Your task to perform on an android device: Open Google Chrome and click the shortcut for Amazon.com Image 0: 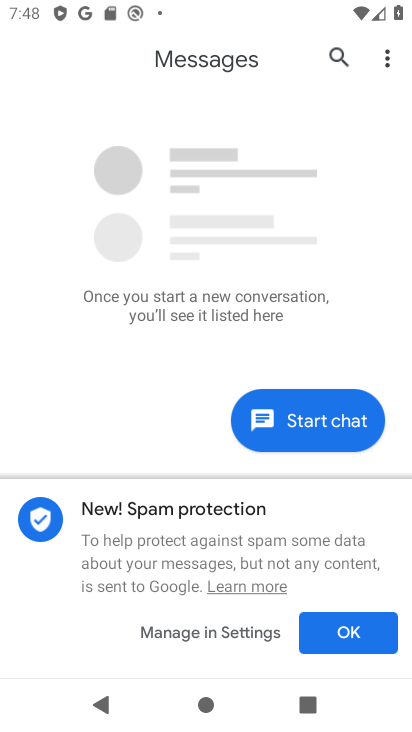
Step 0: press home button
Your task to perform on an android device: Open Google Chrome and click the shortcut for Amazon.com Image 1: 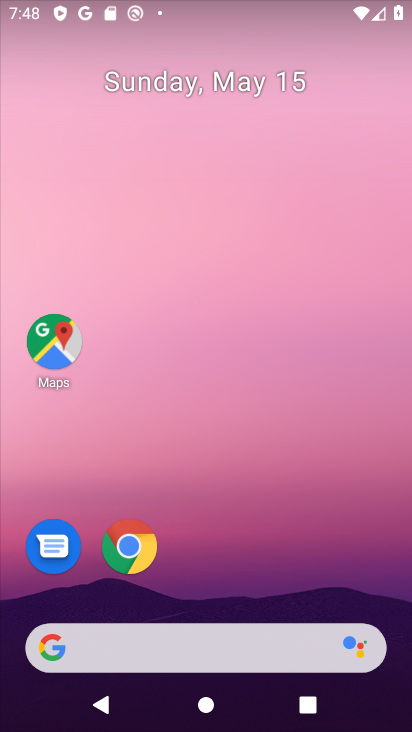
Step 1: click (130, 545)
Your task to perform on an android device: Open Google Chrome and click the shortcut for Amazon.com Image 2: 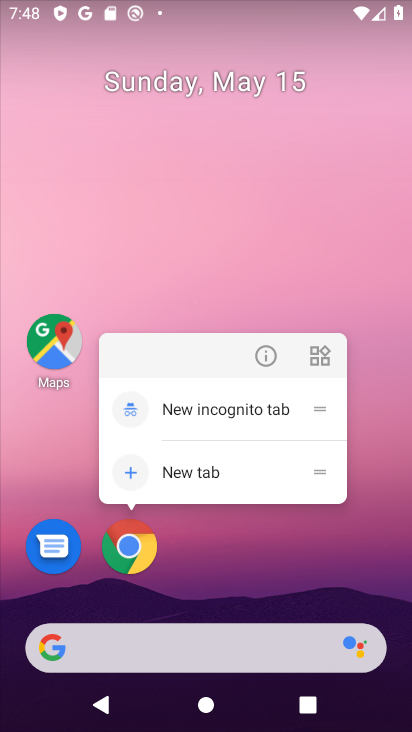
Step 2: click (130, 545)
Your task to perform on an android device: Open Google Chrome and click the shortcut for Amazon.com Image 3: 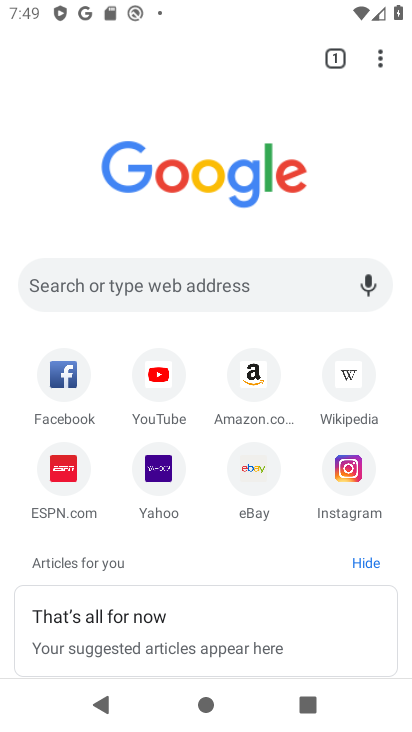
Step 3: click (258, 370)
Your task to perform on an android device: Open Google Chrome and click the shortcut for Amazon.com Image 4: 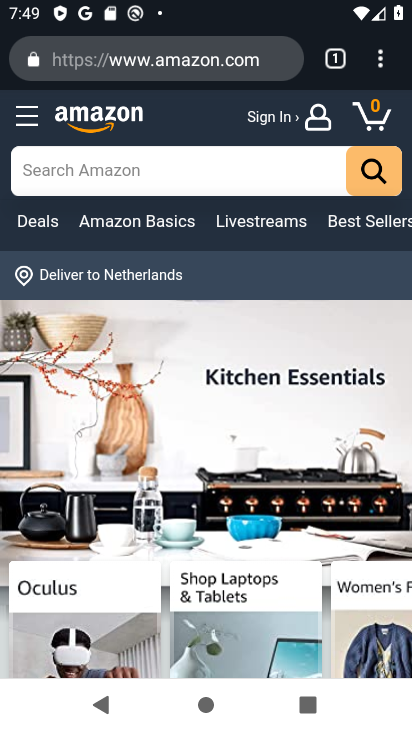
Step 4: task complete